Your task to perform on an android device: Search for sushi restaurants on Maps Image 0: 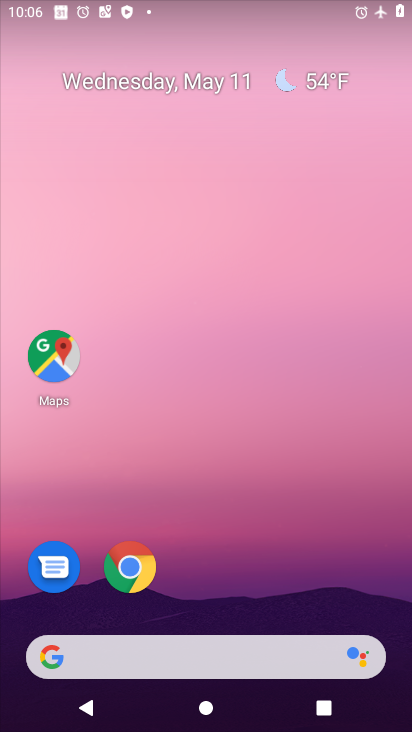
Step 0: drag from (211, 594) to (371, 0)
Your task to perform on an android device: Search for sushi restaurants on Maps Image 1: 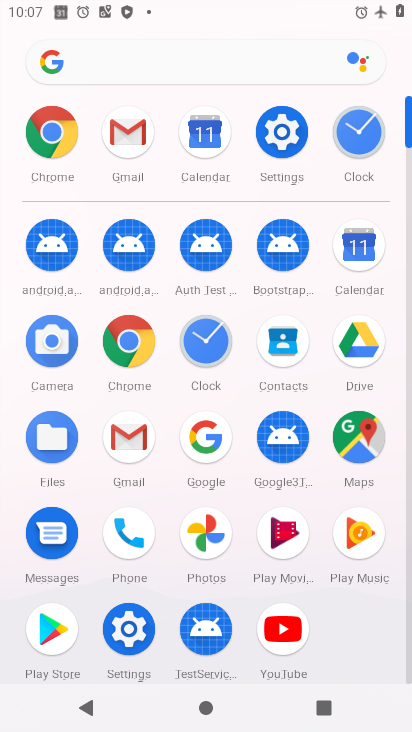
Step 1: click (348, 438)
Your task to perform on an android device: Search for sushi restaurants on Maps Image 2: 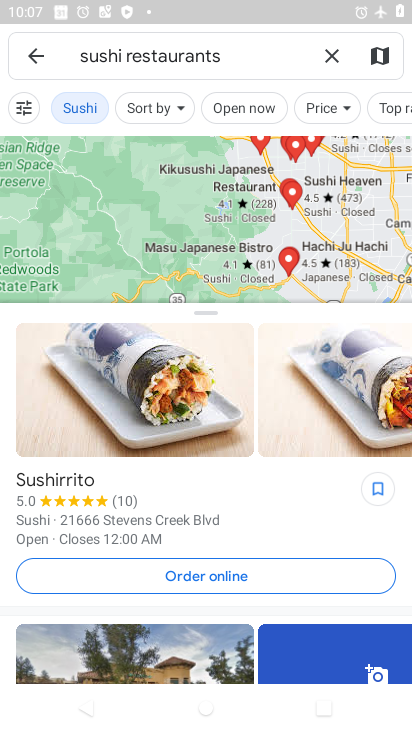
Step 2: task complete